Your task to perform on an android device: Clear the shopping cart on target.com. Search for "amazon basics triple a" on target.com, select the first entry, and add it to the cart. Image 0: 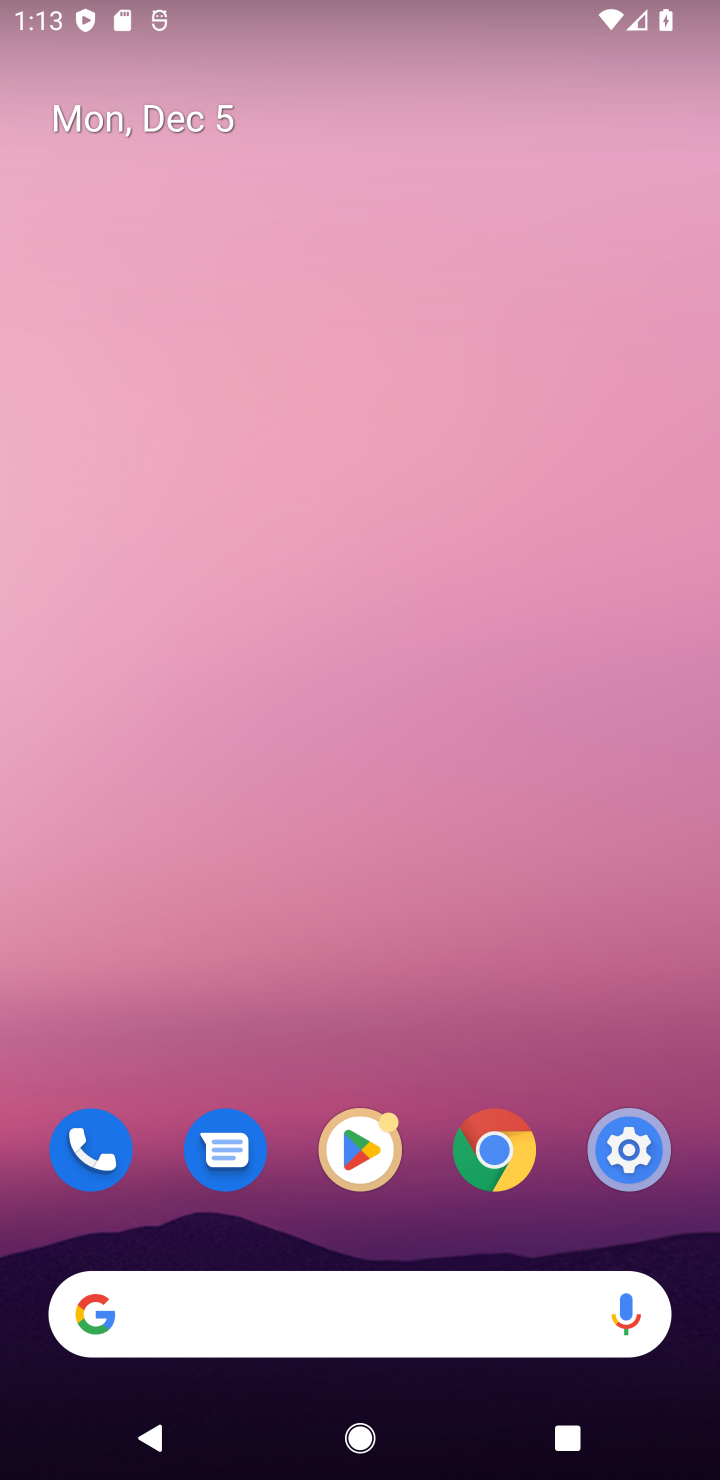
Step 0: click (518, 1135)
Your task to perform on an android device: Clear the shopping cart on target.com. Search for "amazon basics triple a" on target.com, select the first entry, and add it to the cart. Image 1: 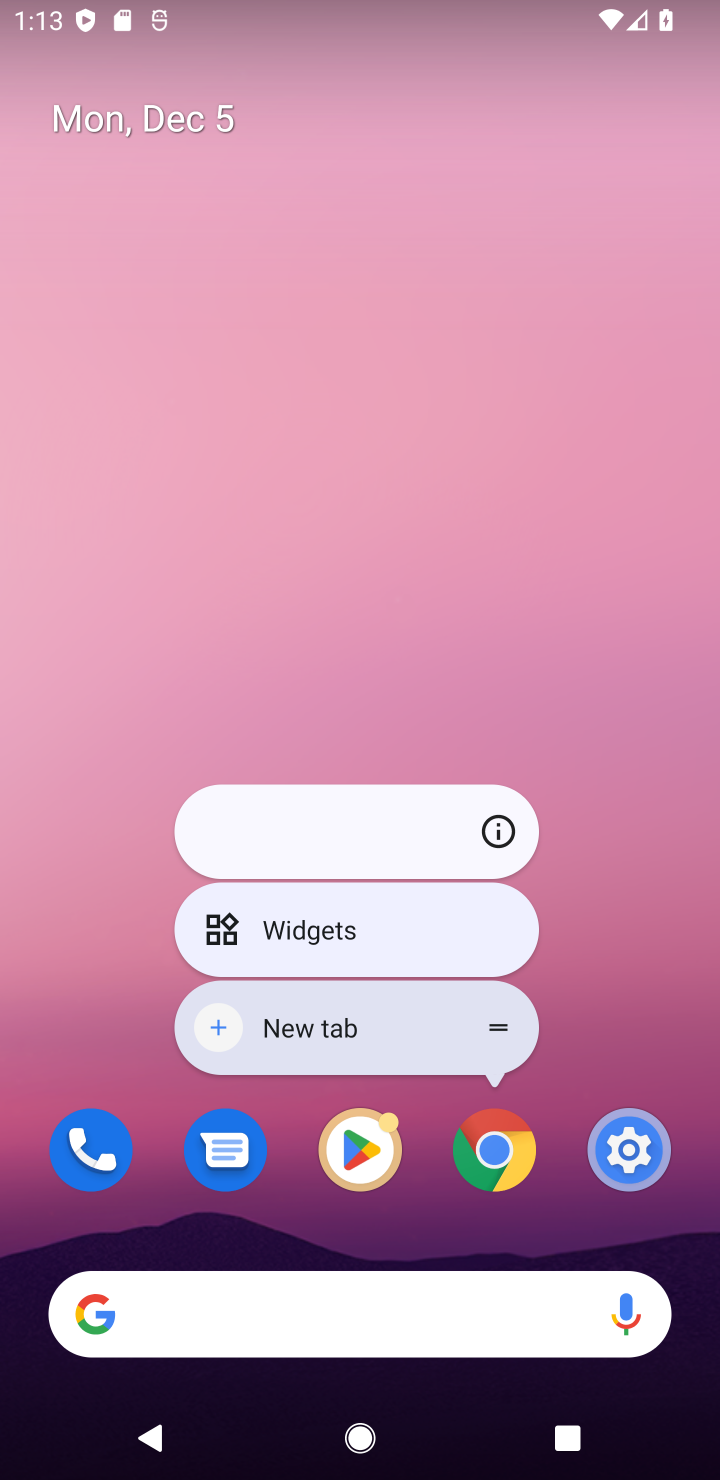
Step 1: click (508, 1138)
Your task to perform on an android device: Clear the shopping cart on target.com. Search for "amazon basics triple a" on target.com, select the first entry, and add it to the cart. Image 2: 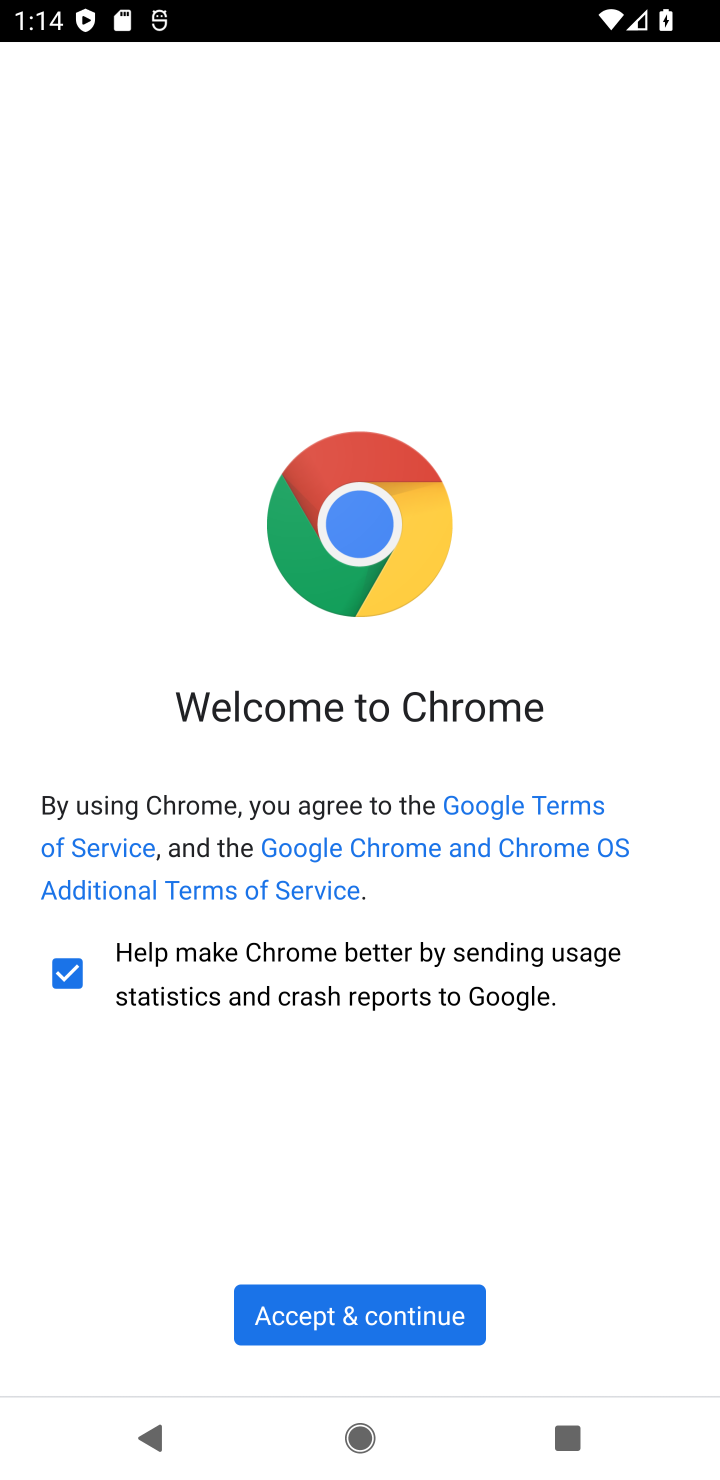
Step 2: click (410, 1328)
Your task to perform on an android device: Clear the shopping cart on target.com. Search for "amazon basics triple a" on target.com, select the first entry, and add it to the cart. Image 3: 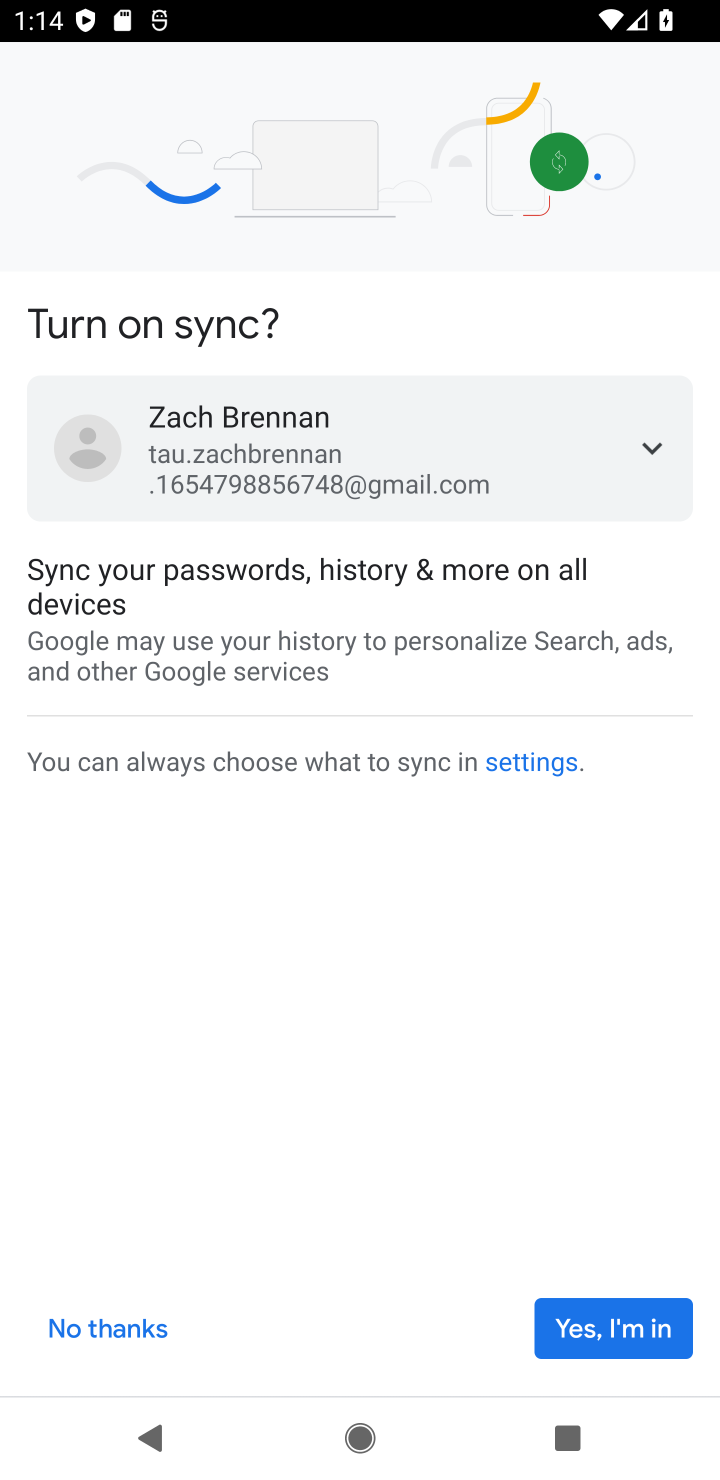
Step 3: click (585, 1324)
Your task to perform on an android device: Clear the shopping cart on target.com. Search for "amazon basics triple a" on target.com, select the first entry, and add it to the cart. Image 4: 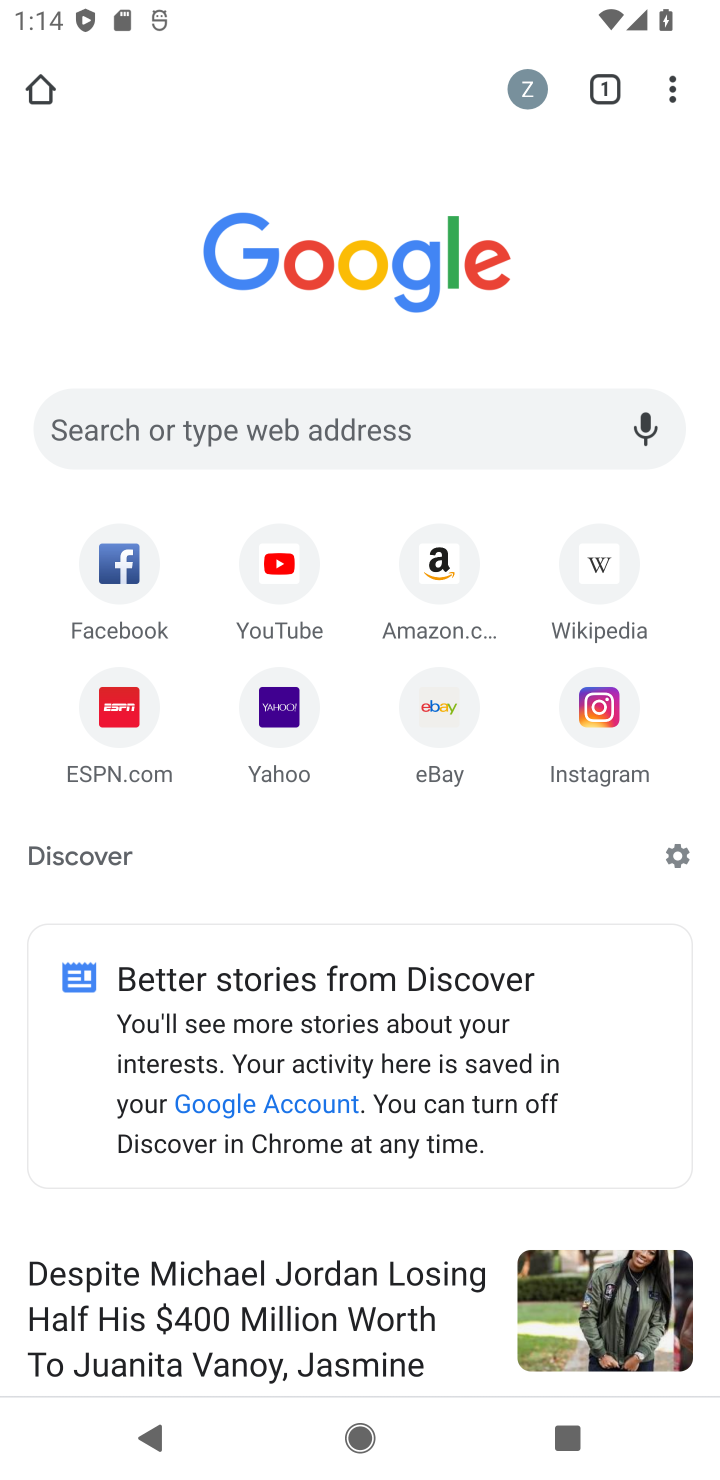
Step 4: click (416, 416)
Your task to perform on an android device: Clear the shopping cart on target.com. Search for "amazon basics triple a" on target.com, select the first entry, and add it to the cart. Image 5: 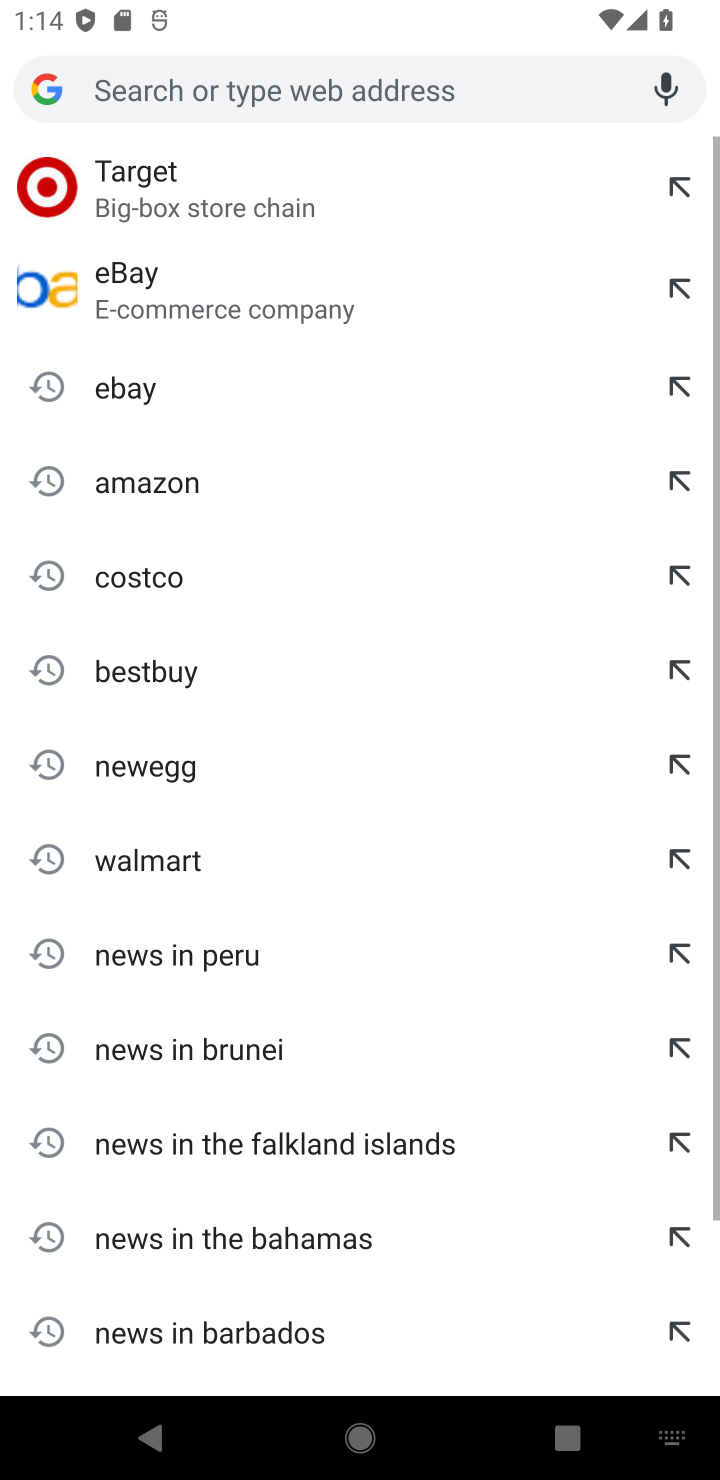
Step 5: click (252, 197)
Your task to perform on an android device: Clear the shopping cart on target.com. Search for "amazon basics triple a" on target.com, select the first entry, and add it to the cart. Image 6: 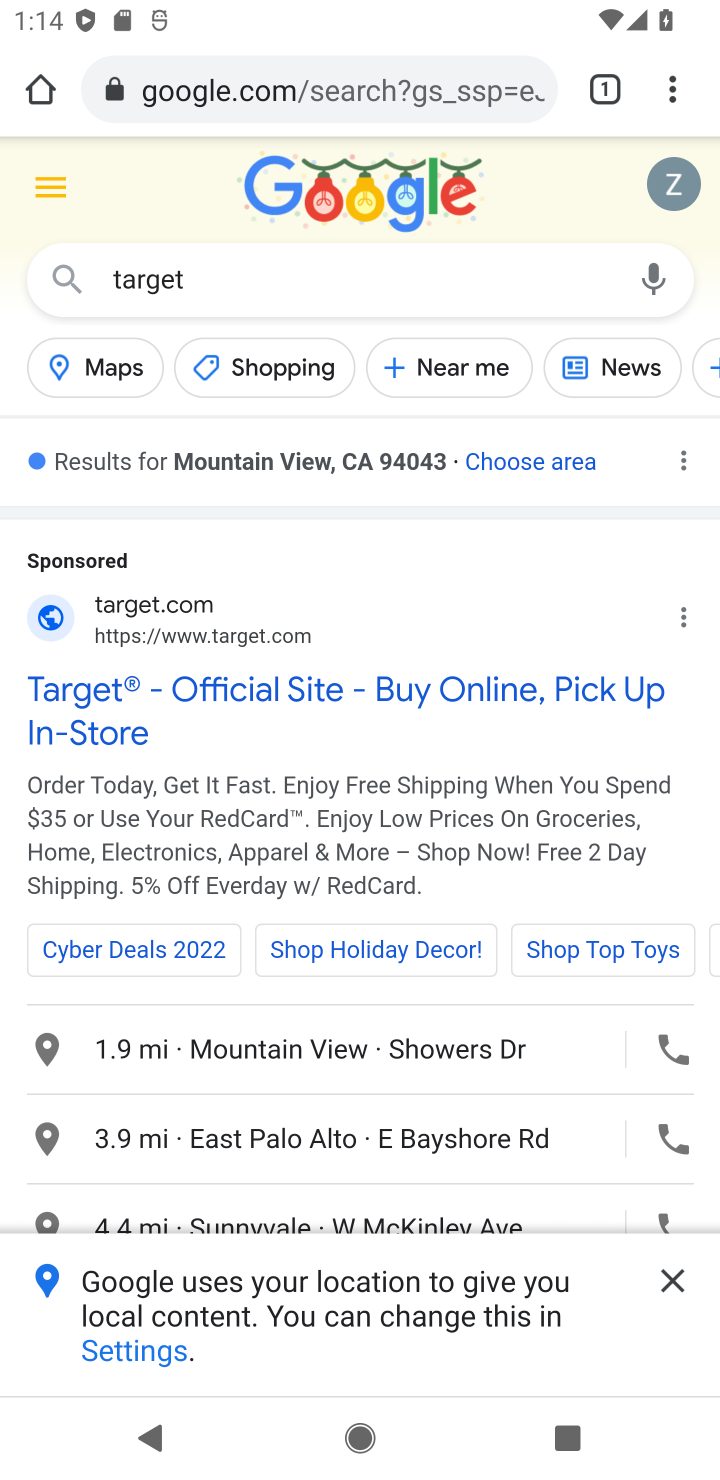
Step 6: click (279, 632)
Your task to perform on an android device: Clear the shopping cart on target.com. Search for "amazon basics triple a" on target.com, select the first entry, and add it to the cart. Image 7: 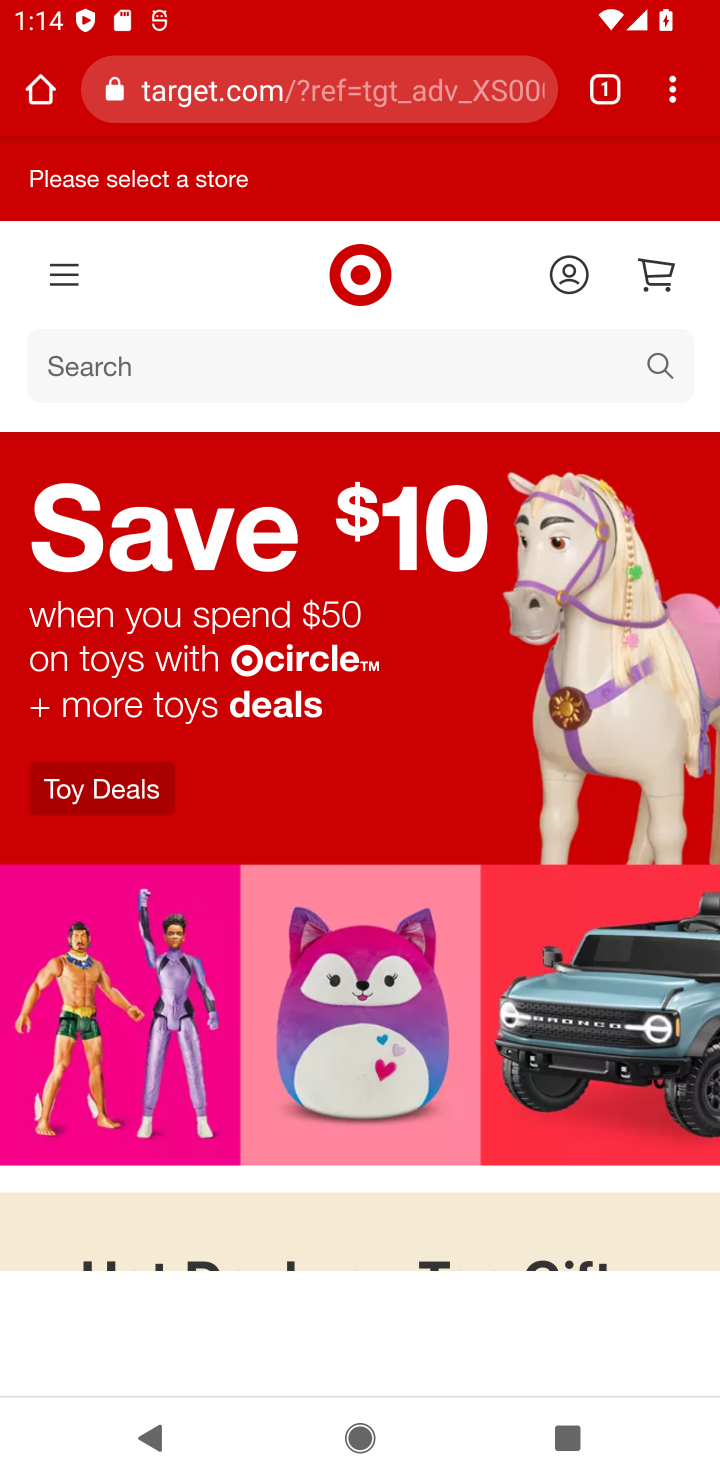
Step 7: click (419, 359)
Your task to perform on an android device: Clear the shopping cart on target.com. Search for "amazon basics triple a" on target.com, select the first entry, and add it to the cart. Image 8: 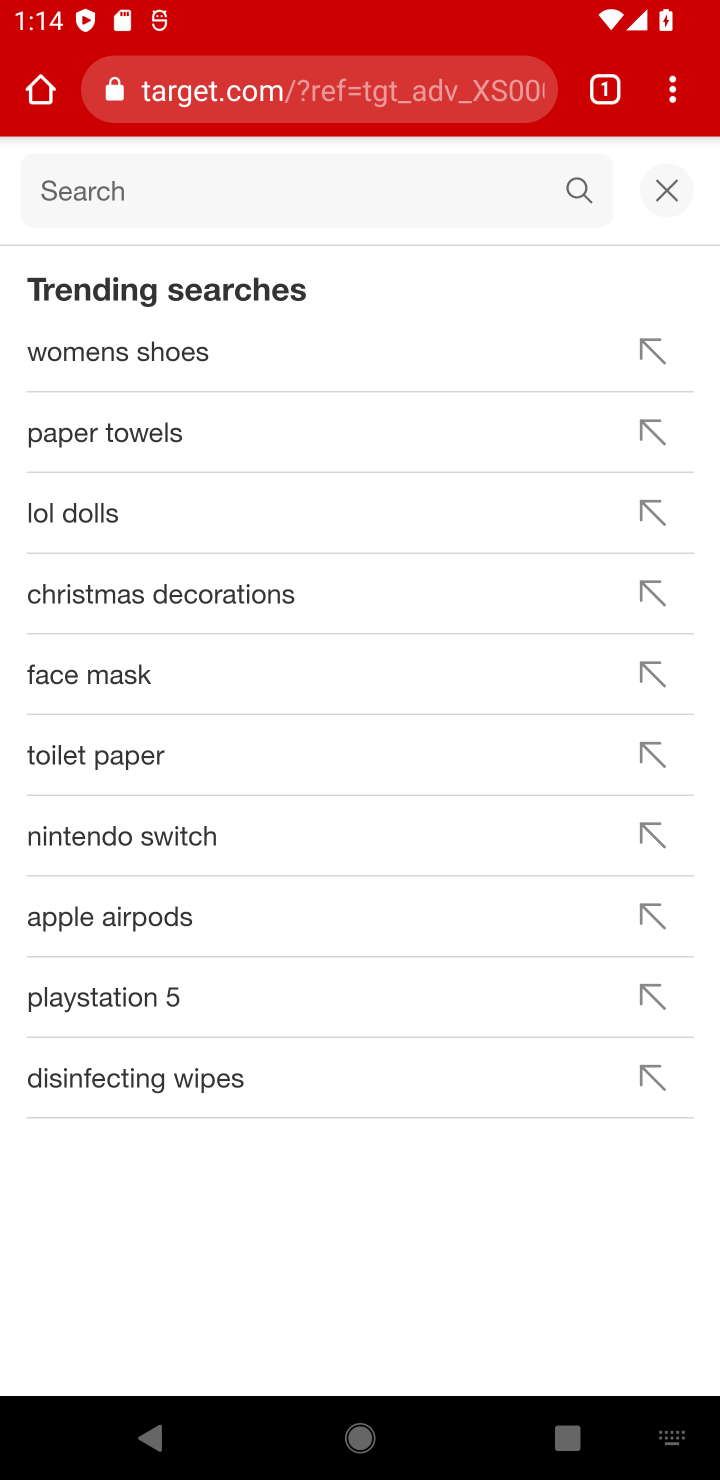
Step 8: type "amazon basics triple a"
Your task to perform on an android device: Clear the shopping cart on target.com. Search for "amazon basics triple a" on target.com, select the first entry, and add it to the cart. Image 9: 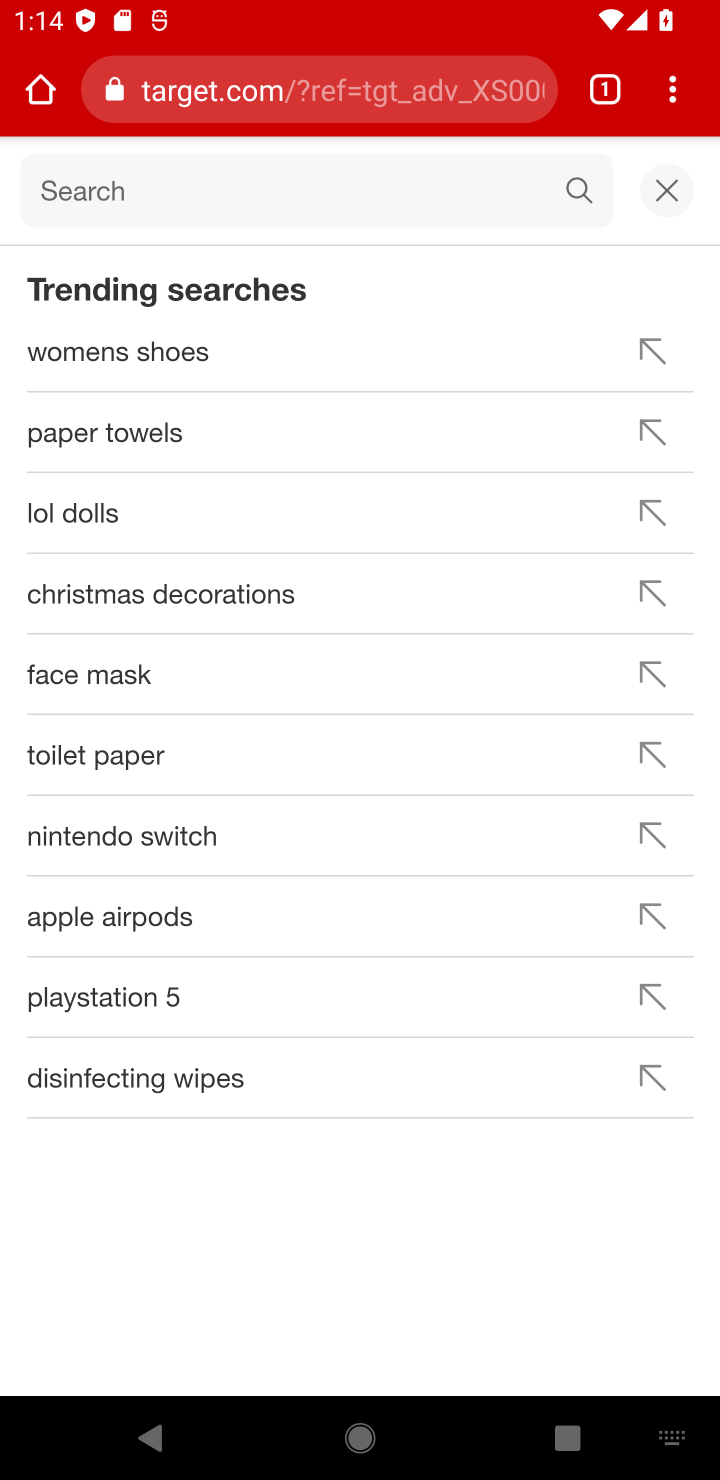
Step 9: press enter
Your task to perform on an android device: Clear the shopping cart on target.com. Search for "amazon basics triple a" on target.com, select the first entry, and add it to the cart. Image 10: 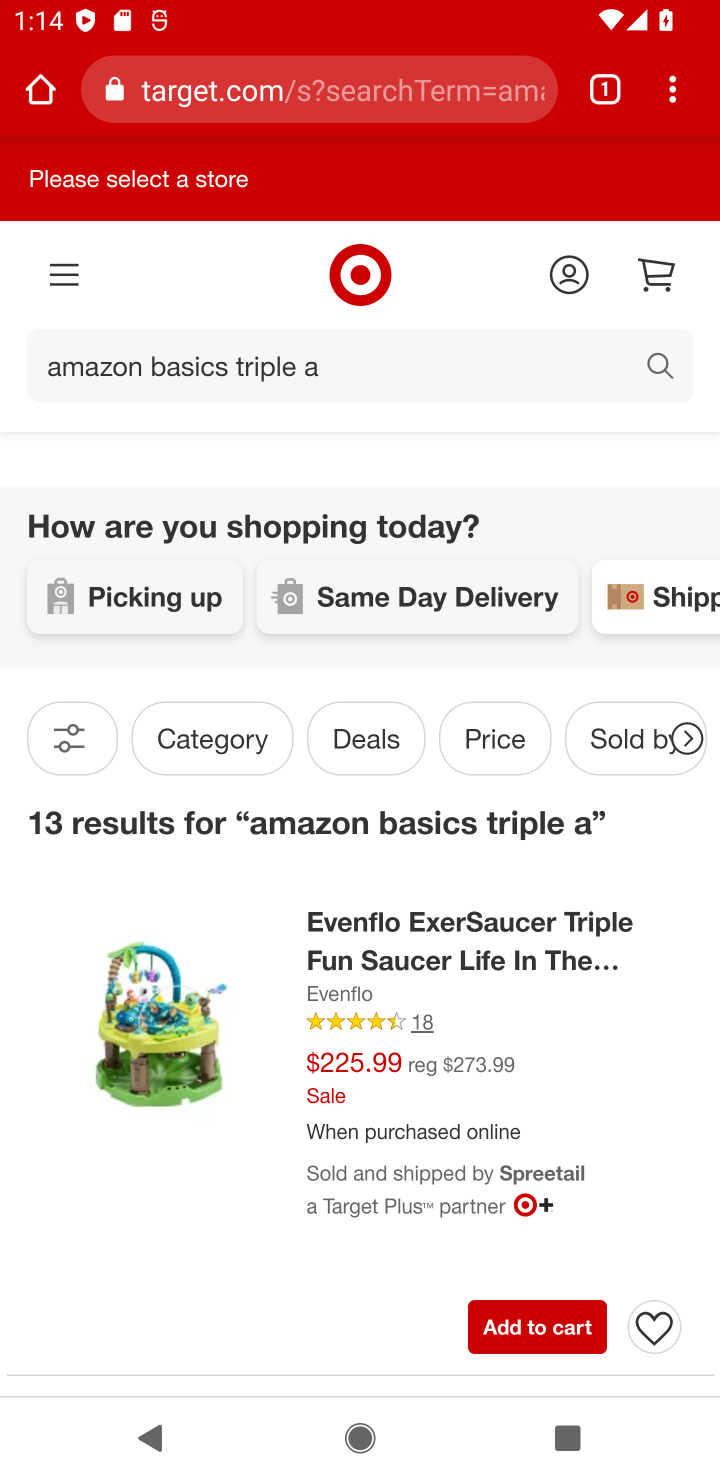
Step 10: task complete